Your task to perform on an android device: Search for sony triple a on newegg, select the first entry, and add it to the cart. Image 0: 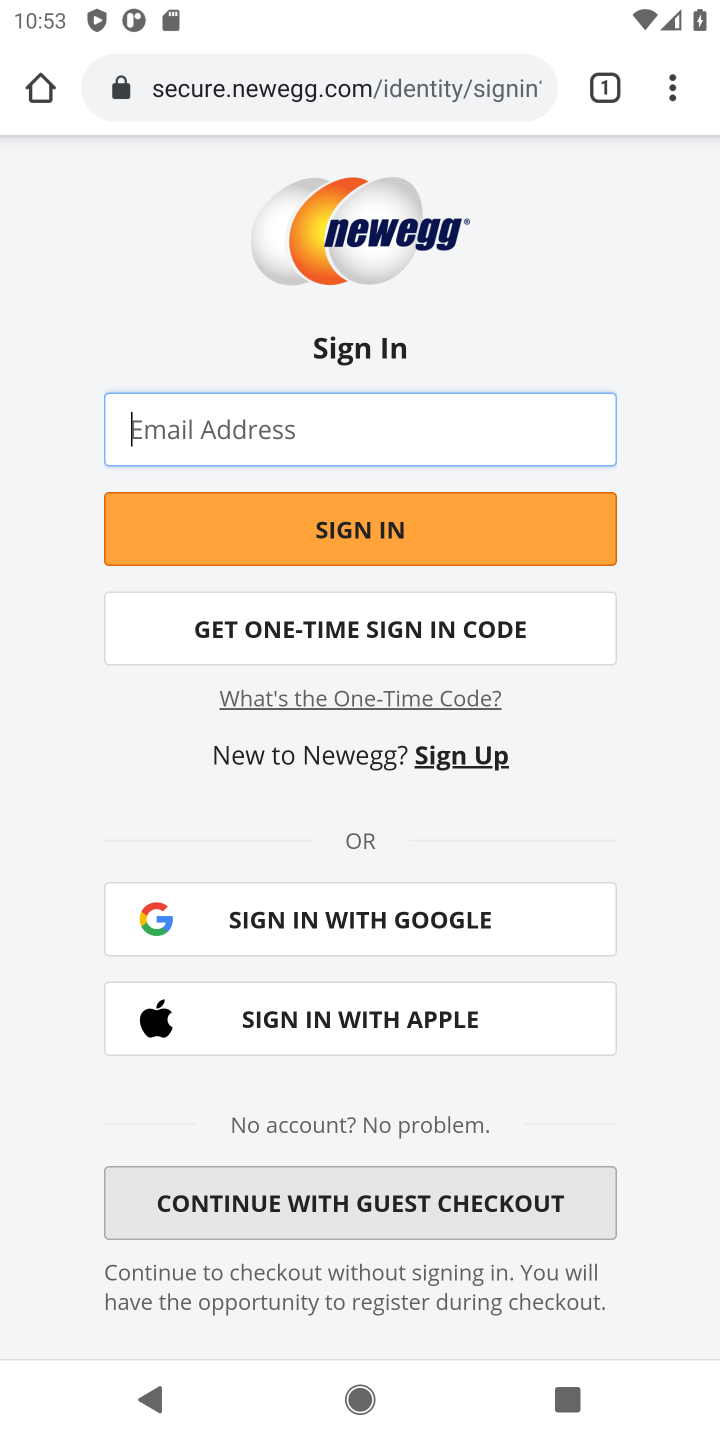
Step 0: task complete